Your task to perform on an android device: Show me popular games on the Play Store Image 0: 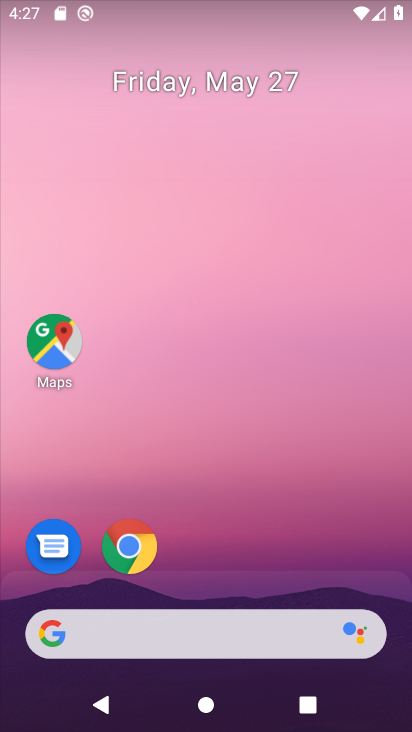
Step 0: drag from (306, 549) to (187, 5)
Your task to perform on an android device: Show me popular games on the Play Store Image 1: 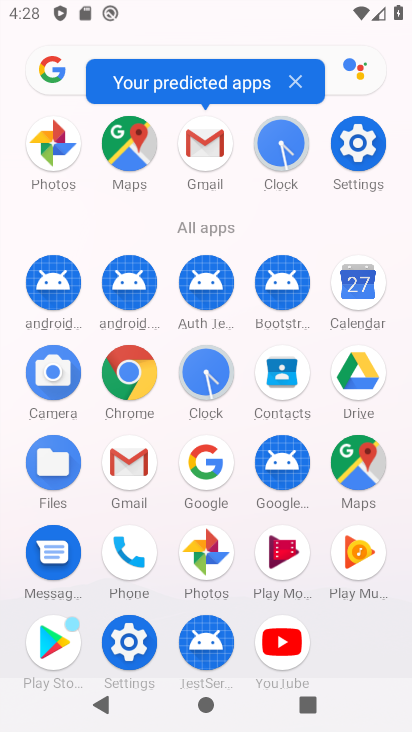
Step 1: click (51, 641)
Your task to perform on an android device: Show me popular games on the Play Store Image 2: 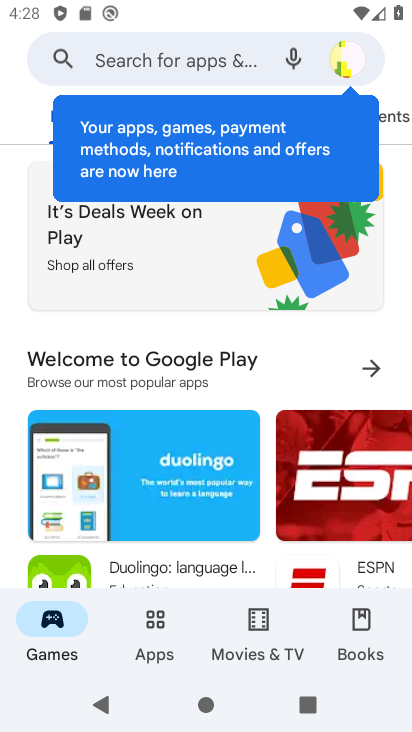
Step 2: task complete